Your task to perform on an android device: install app "Etsy: Buy & Sell Unique Items" Image 0: 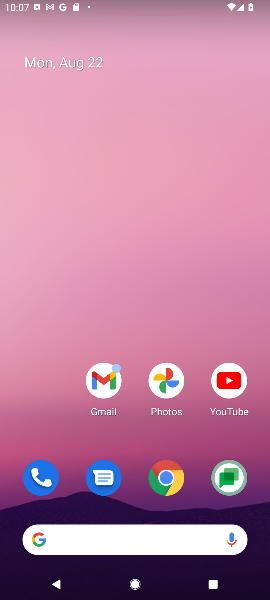
Step 0: click (136, 510)
Your task to perform on an android device: install app "Etsy: Buy & Sell Unique Items" Image 1: 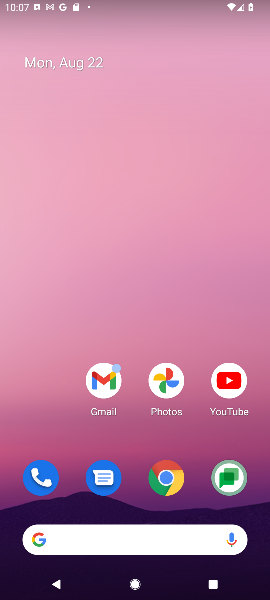
Step 1: click (107, 376)
Your task to perform on an android device: install app "Etsy: Buy & Sell Unique Items" Image 2: 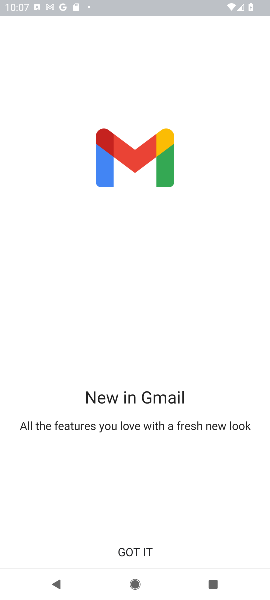
Step 2: press home button
Your task to perform on an android device: install app "Etsy: Buy & Sell Unique Items" Image 3: 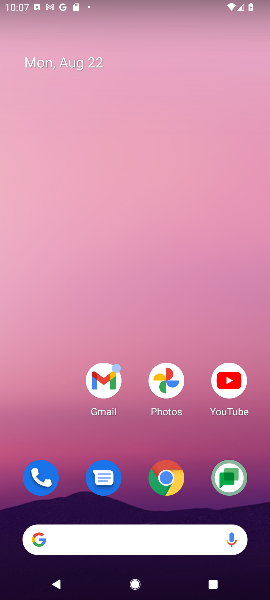
Step 3: drag from (138, 514) to (150, 45)
Your task to perform on an android device: install app "Etsy: Buy & Sell Unique Items" Image 4: 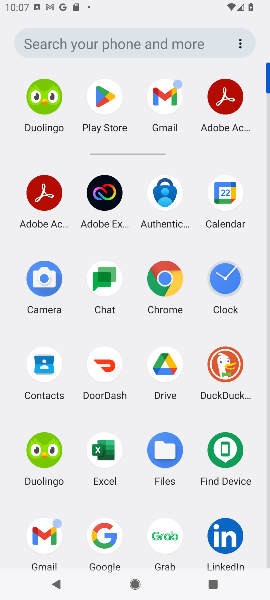
Step 4: click (88, 88)
Your task to perform on an android device: install app "Etsy: Buy & Sell Unique Items" Image 5: 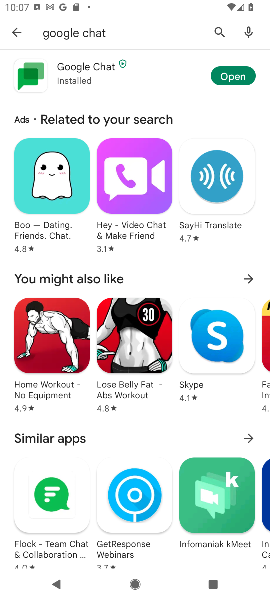
Step 5: click (207, 34)
Your task to perform on an android device: install app "Etsy: Buy & Sell Unique Items" Image 6: 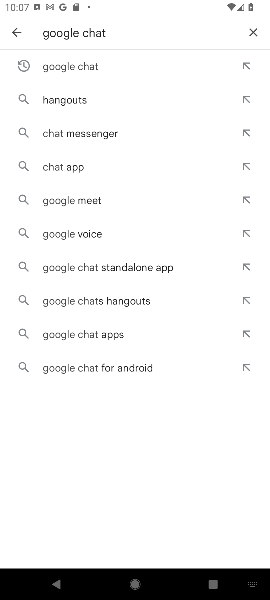
Step 6: click (249, 36)
Your task to perform on an android device: install app "Etsy: Buy & Sell Unique Items" Image 7: 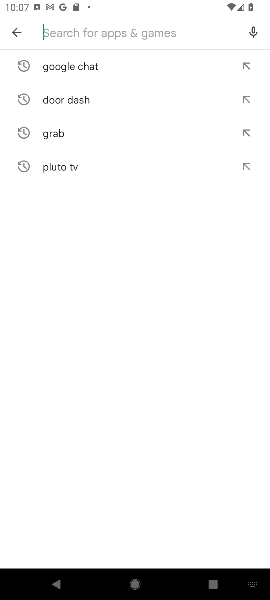
Step 7: type "etsy"
Your task to perform on an android device: install app "Etsy: Buy & Sell Unique Items" Image 8: 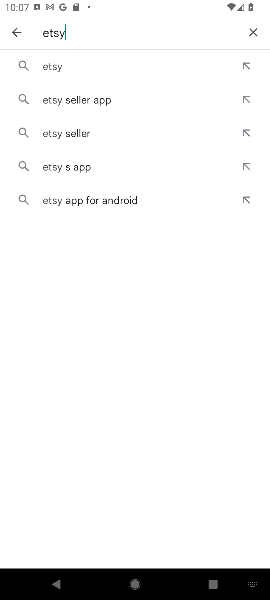
Step 8: click (144, 75)
Your task to perform on an android device: install app "Etsy: Buy & Sell Unique Items" Image 9: 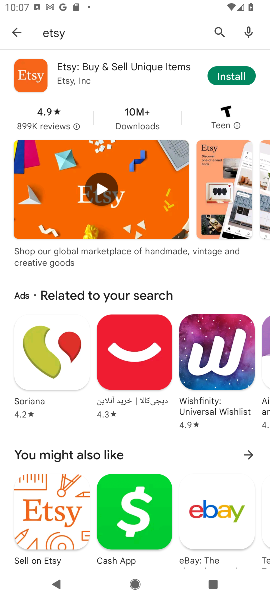
Step 9: click (243, 72)
Your task to perform on an android device: install app "Etsy: Buy & Sell Unique Items" Image 10: 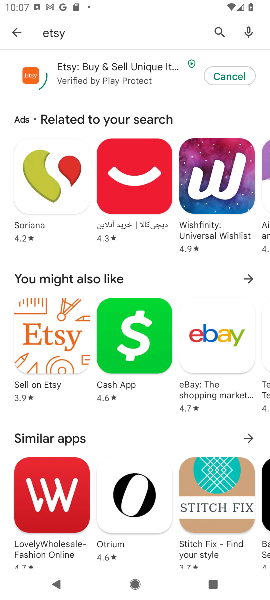
Step 10: task complete